Your task to perform on an android device: Is it going to rain this weekend? Image 0: 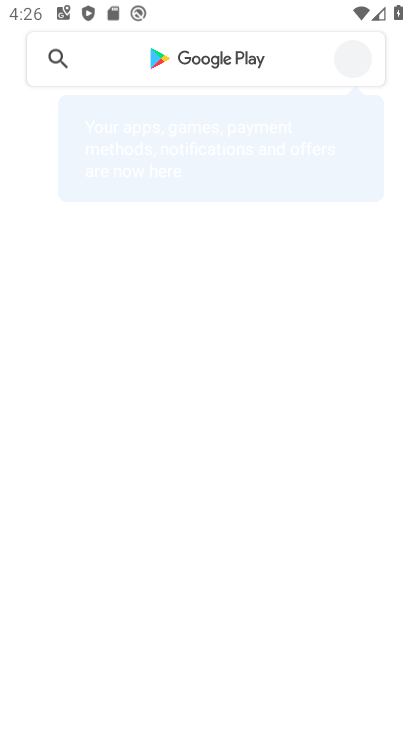
Step 0: press home button
Your task to perform on an android device: Is it going to rain this weekend? Image 1: 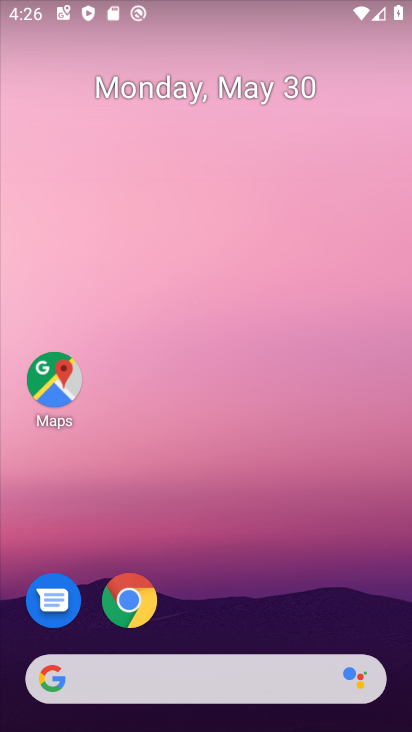
Step 1: drag from (2, 270) to (409, 265)
Your task to perform on an android device: Is it going to rain this weekend? Image 2: 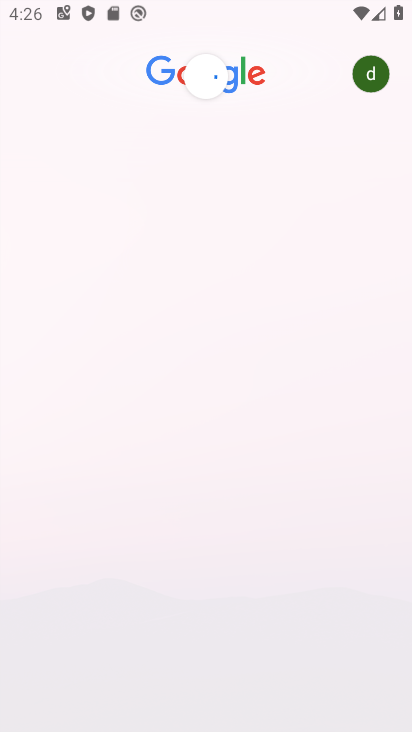
Step 2: drag from (408, 259) to (406, 213)
Your task to perform on an android device: Is it going to rain this weekend? Image 3: 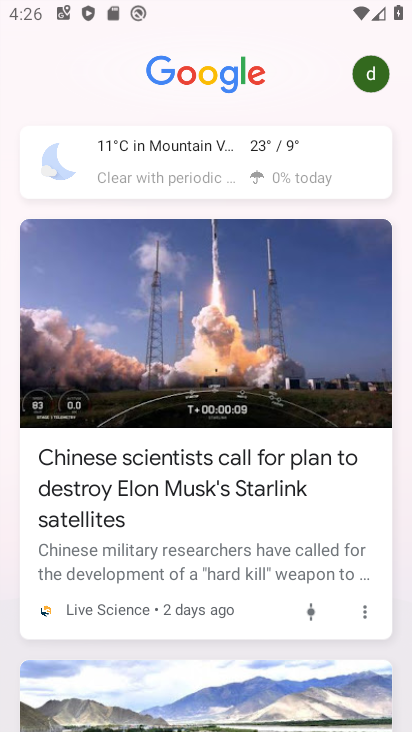
Step 3: click (284, 155)
Your task to perform on an android device: Is it going to rain this weekend? Image 4: 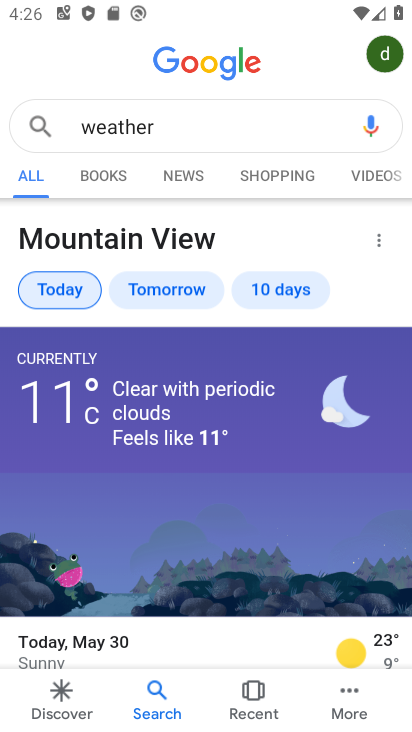
Step 4: click (281, 279)
Your task to perform on an android device: Is it going to rain this weekend? Image 5: 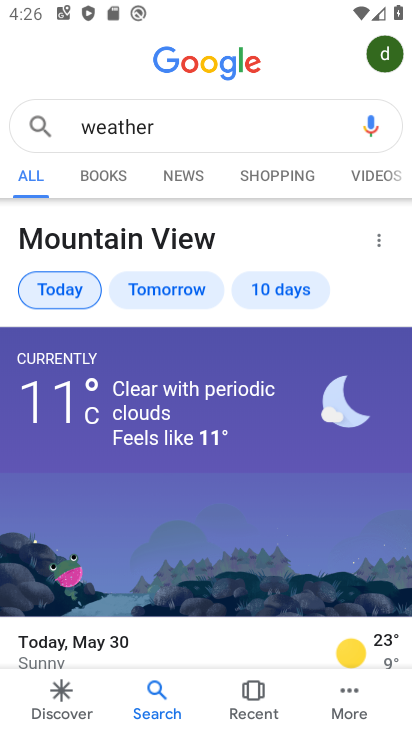
Step 5: click (277, 296)
Your task to perform on an android device: Is it going to rain this weekend? Image 6: 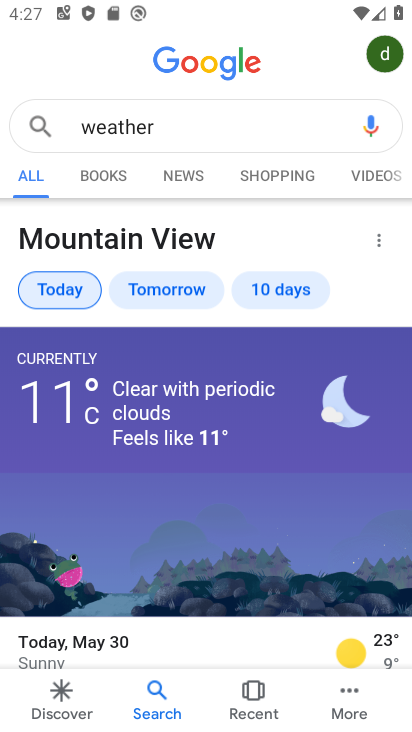
Step 6: click (248, 435)
Your task to perform on an android device: Is it going to rain this weekend? Image 7: 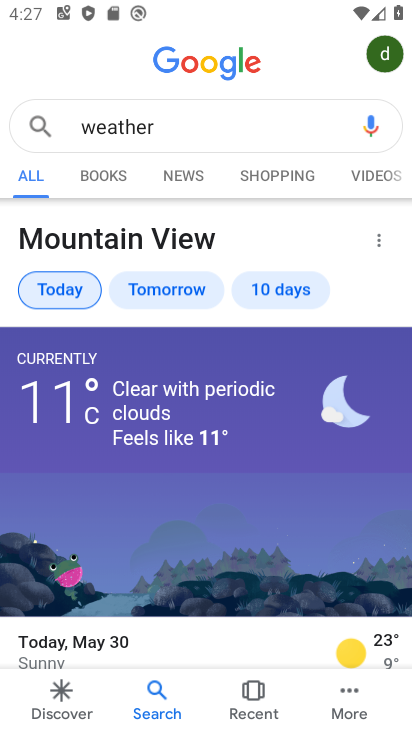
Step 7: click (276, 289)
Your task to perform on an android device: Is it going to rain this weekend? Image 8: 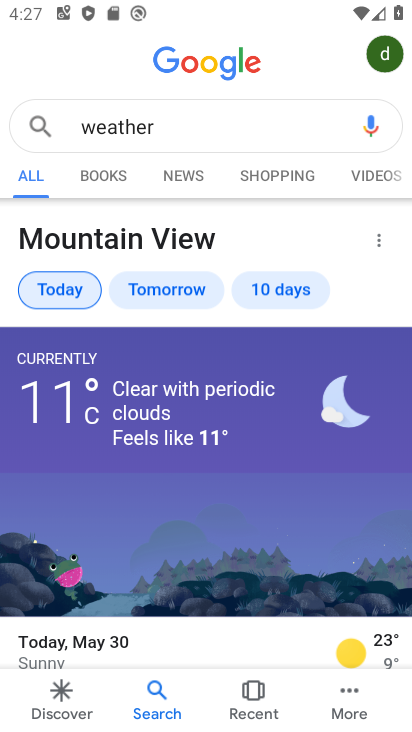
Step 8: click (276, 289)
Your task to perform on an android device: Is it going to rain this weekend? Image 9: 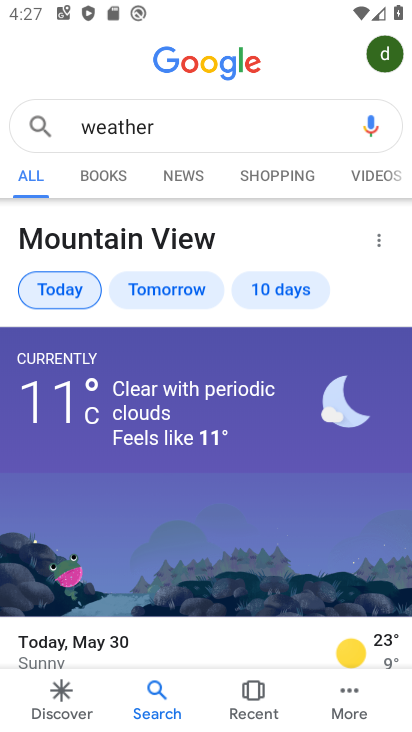
Step 9: click (276, 289)
Your task to perform on an android device: Is it going to rain this weekend? Image 10: 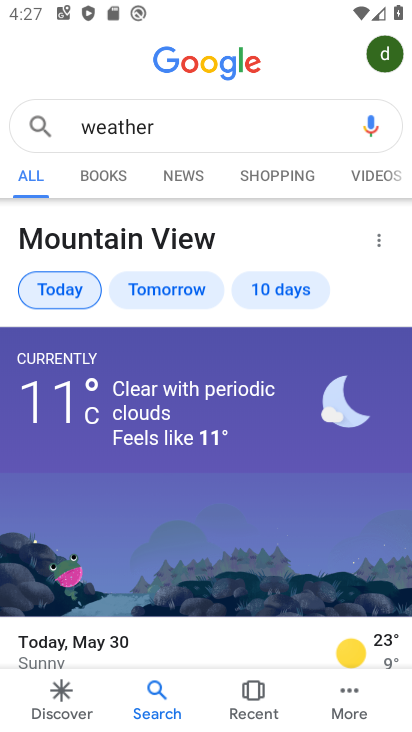
Step 10: task complete